Your task to perform on an android device: toggle notifications settings in the gmail app Image 0: 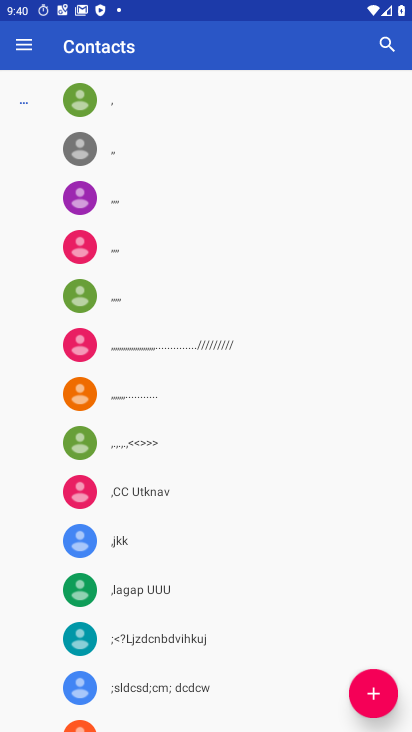
Step 0: press home button
Your task to perform on an android device: toggle notifications settings in the gmail app Image 1: 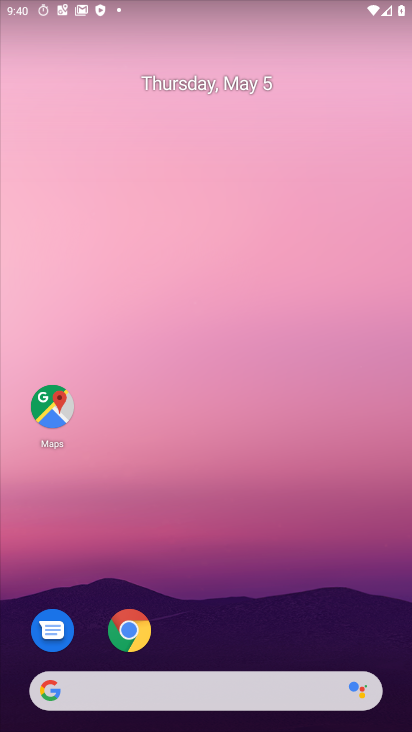
Step 1: drag from (170, 481) to (52, 89)
Your task to perform on an android device: toggle notifications settings in the gmail app Image 2: 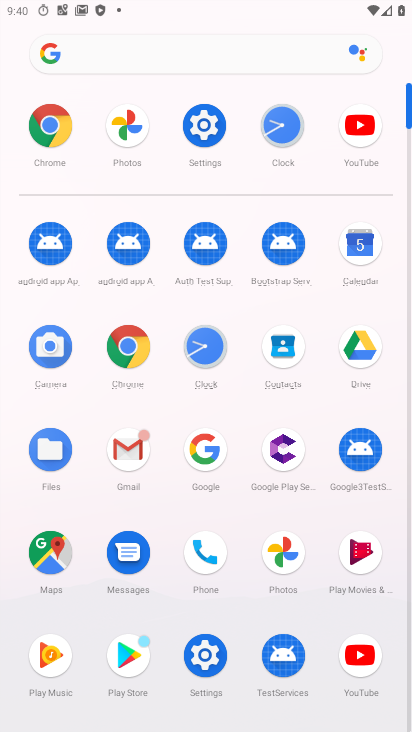
Step 2: click (131, 450)
Your task to perform on an android device: toggle notifications settings in the gmail app Image 3: 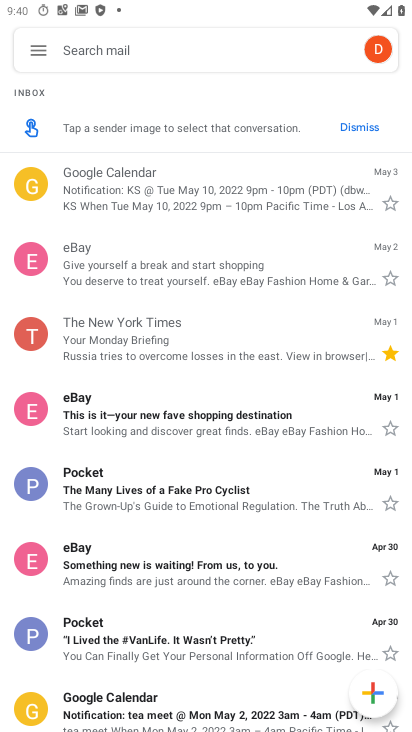
Step 3: click (34, 52)
Your task to perform on an android device: toggle notifications settings in the gmail app Image 4: 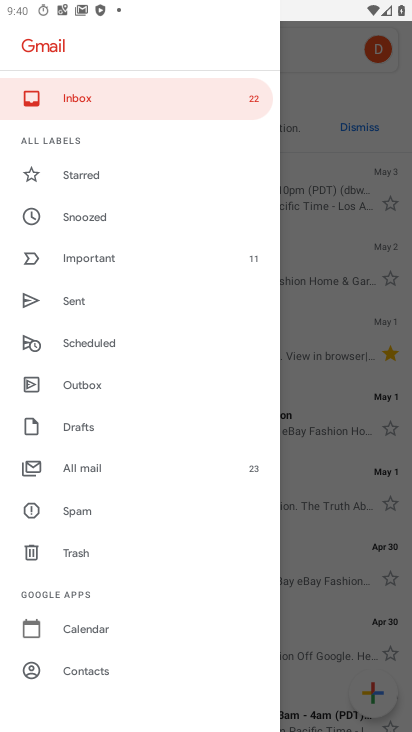
Step 4: drag from (84, 655) to (96, 422)
Your task to perform on an android device: toggle notifications settings in the gmail app Image 5: 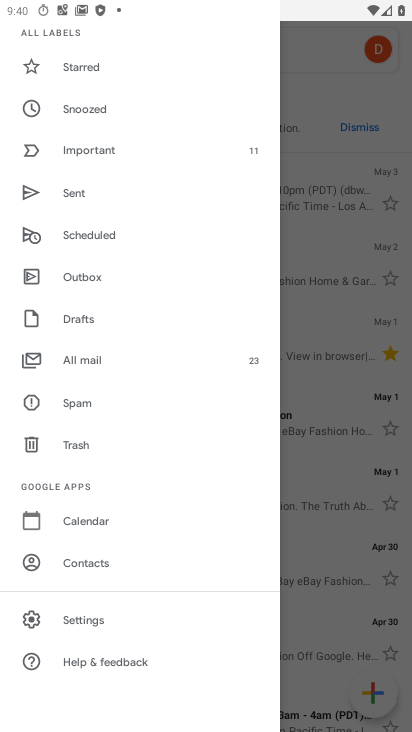
Step 5: click (74, 617)
Your task to perform on an android device: toggle notifications settings in the gmail app Image 6: 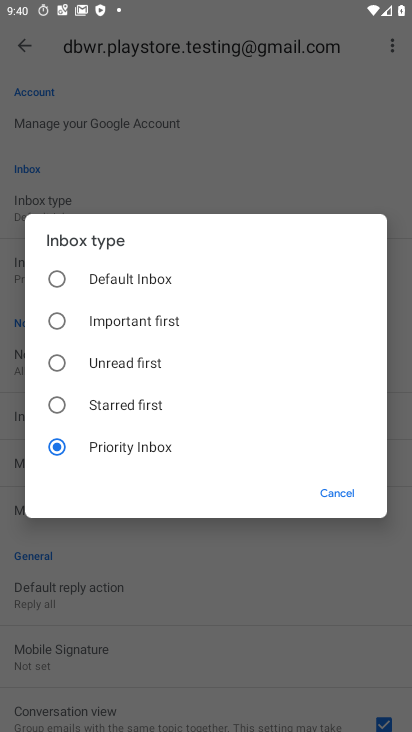
Step 6: click (348, 490)
Your task to perform on an android device: toggle notifications settings in the gmail app Image 7: 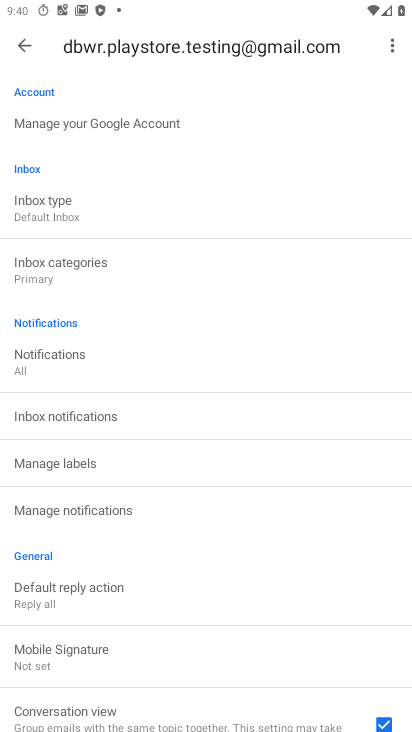
Step 7: click (69, 514)
Your task to perform on an android device: toggle notifications settings in the gmail app Image 8: 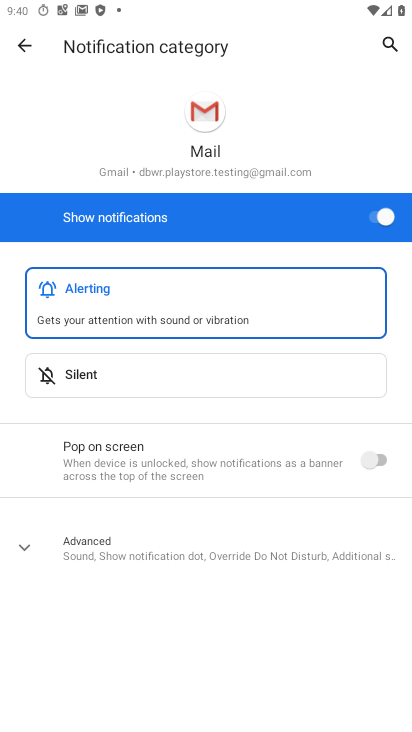
Step 8: click (380, 216)
Your task to perform on an android device: toggle notifications settings in the gmail app Image 9: 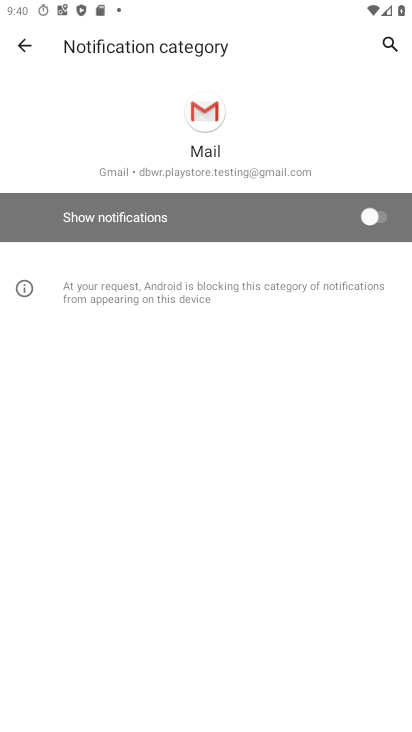
Step 9: task complete